Your task to perform on an android device: turn on priority inbox in the gmail app Image 0: 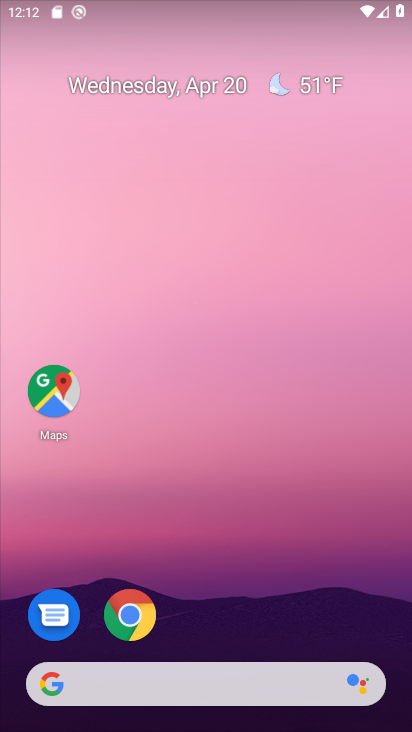
Step 0: drag from (222, 679) to (220, 204)
Your task to perform on an android device: turn on priority inbox in the gmail app Image 1: 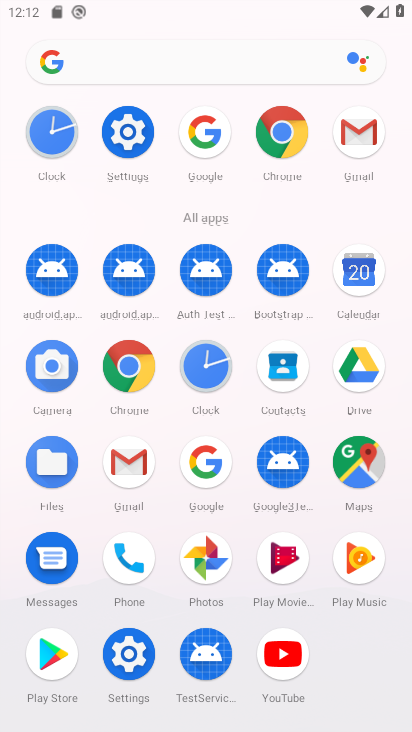
Step 1: click (354, 138)
Your task to perform on an android device: turn on priority inbox in the gmail app Image 2: 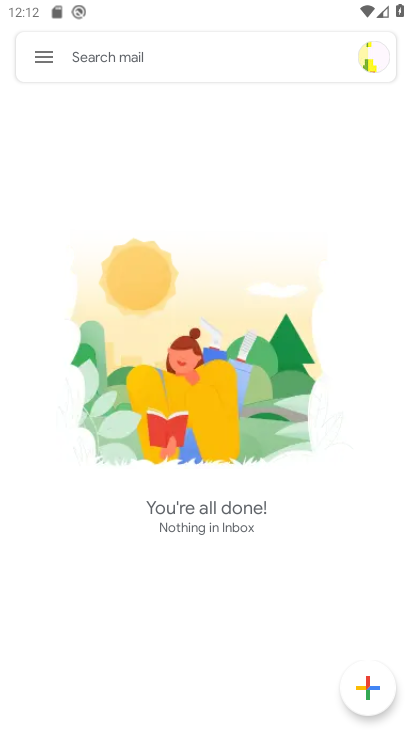
Step 2: click (34, 67)
Your task to perform on an android device: turn on priority inbox in the gmail app Image 3: 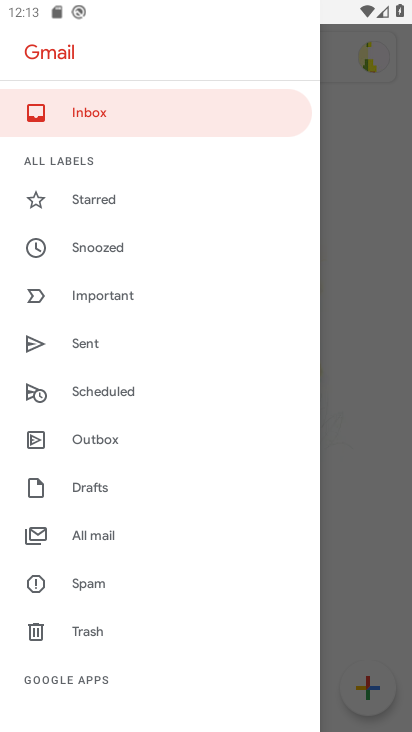
Step 3: drag from (135, 654) to (128, 248)
Your task to perform on an android device: turn on priority inbox in the gmail app Image 4: 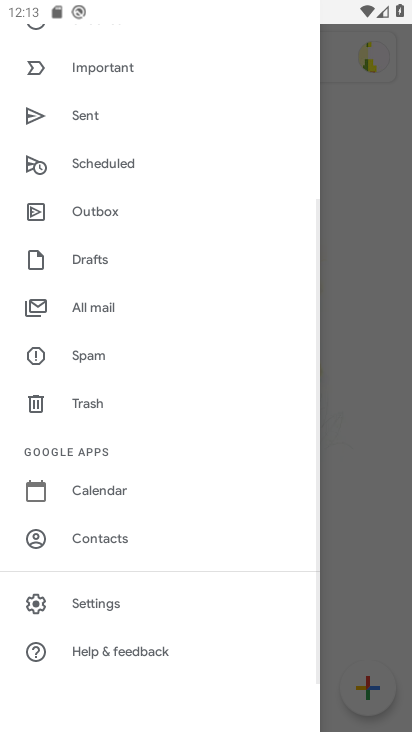
Step 4: click (95, 606)
Your task to perform on an android device: turn on priority inbox in the gmail app Image 5: 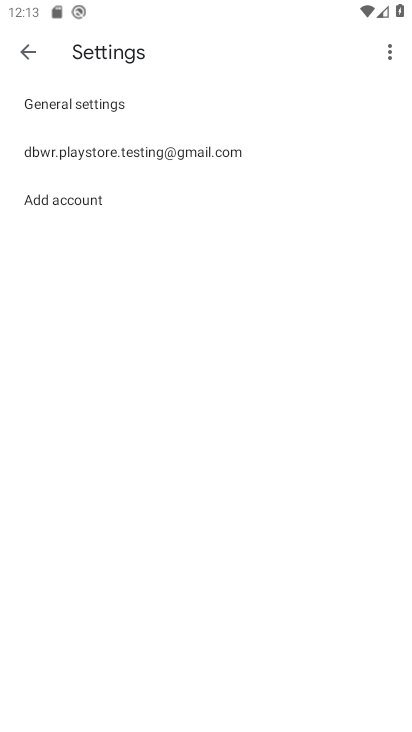
Step 5: click (128, 146)
Your task to perform on an android device: turn on priority inbox in the gmail app Image 6: 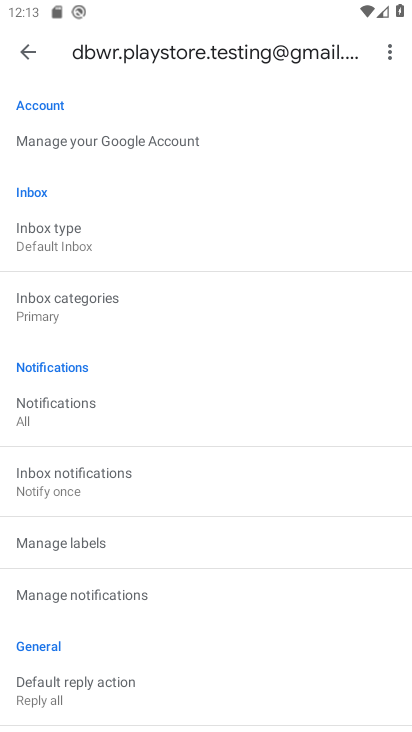
Step 6: click (61, 250)
Your task to perform on an android device: turn on priority inbox in the gmail app Image 7: 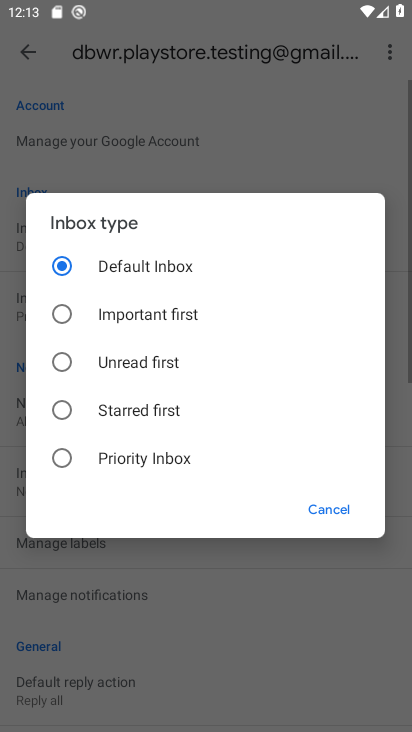
Step 7: click (119, 464)
Your task to perform on an android device: turn on priority inbox in the gmail app Image 8: 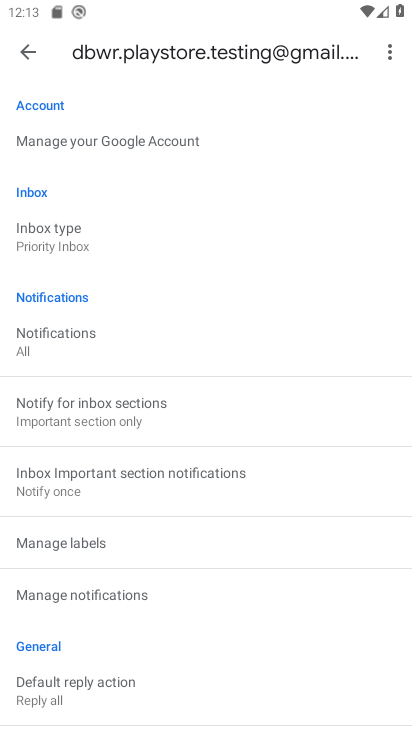
Step 8: task complete